Your task to perform on an android device: turn off notifications in google photos Image 0: 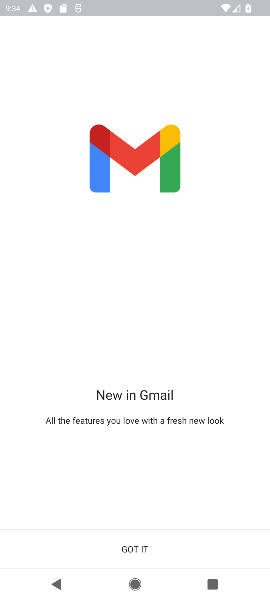
Step 0: press home button
Your task to perform on an android device: turn off notifications in google photos Image 1: 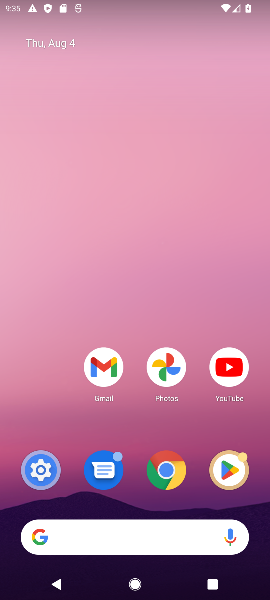
Step 1: click (178, 369)
Your task to perform on an android device: turn off notifications in google photos Image 2: 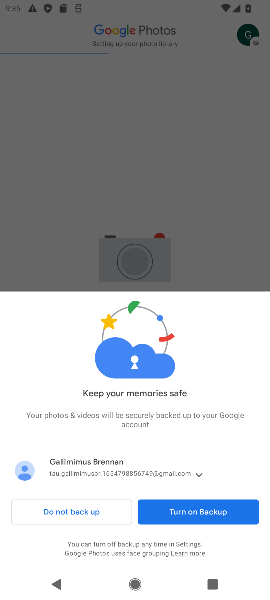
Step 2: click (186, 515)
Your task to perform on an android device: turn off notifications in google photos Image 3: 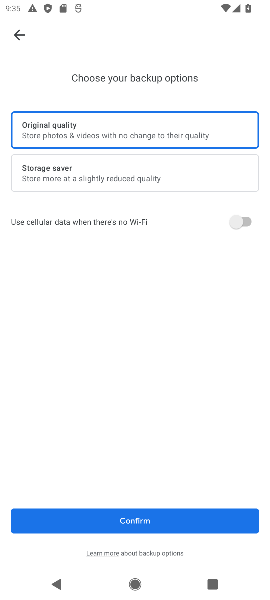
Step 3: click (169, 524)
Your task to perform on an android device: turn off notifications in google photos Image 4: 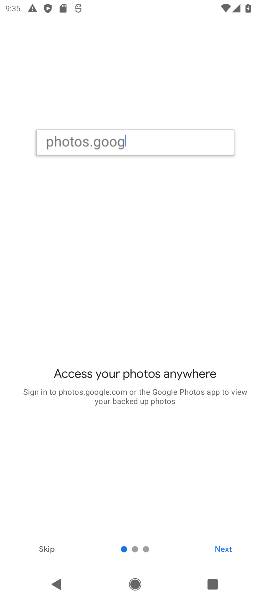
Step 4: click (169, 524)
Your task to perform on an android device: turn off notifications in google photos Image 5: 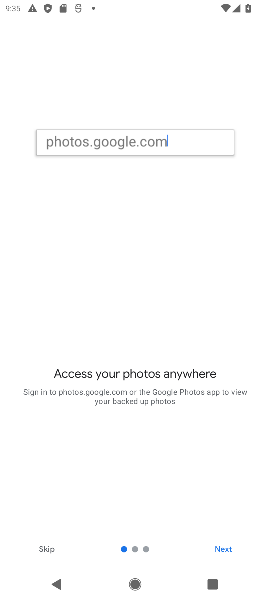
Step 5: click (37, 544)
Your task to perform on an android device: turn off notifications in google photos Image 6: 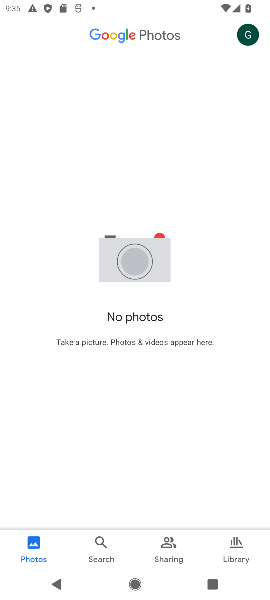
Step 6: click (251, 32)
Your task to perform on an android device: turn off notifications in google photos Image 7: 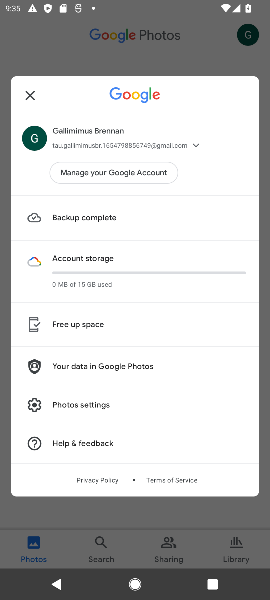
Step 7: click (90, 408)
Your task to perform on an android device: turn off notifications in google photos Image 8: 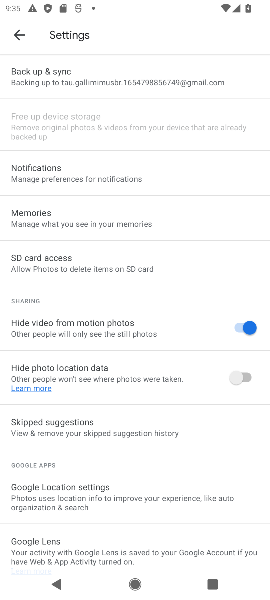
Step 8: click (95, 173)
Your task to perform on an android device: turn off notifications in google photos Image 9: 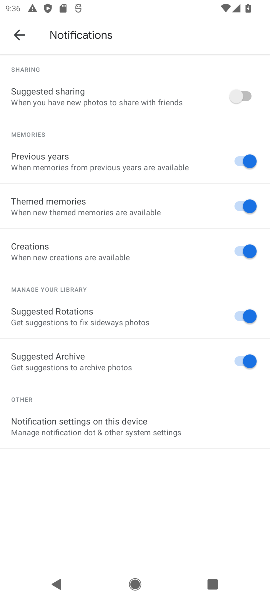
Step 9: click (148, 429)
Your task to perform on an android device: turn off notifications in google photos Image 10: 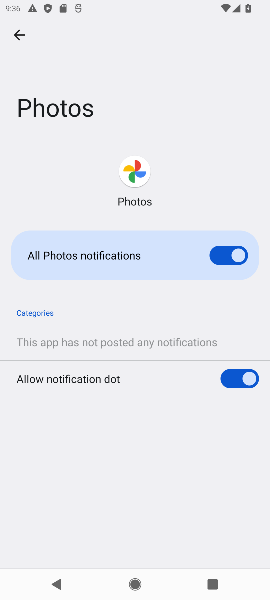
Step 10: click (233, 251)
Your task to perform on an android device: turn off notifications in google photos Image 11: 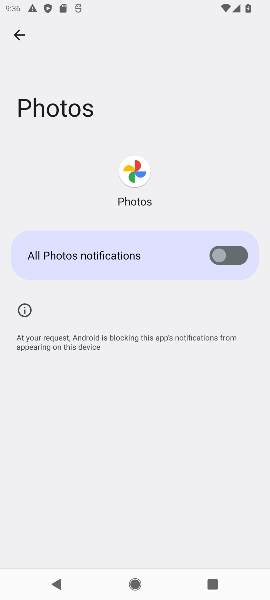
Step 11: task complete